Your task to perform on an android device: Open Chrome and go to settings Image 0: 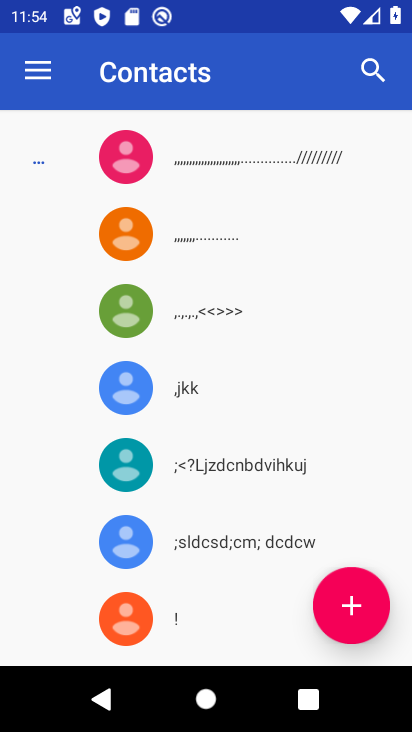
Step 0: press home button
Your task to perform on an android device: Open Chrome and go to settings Image 1: 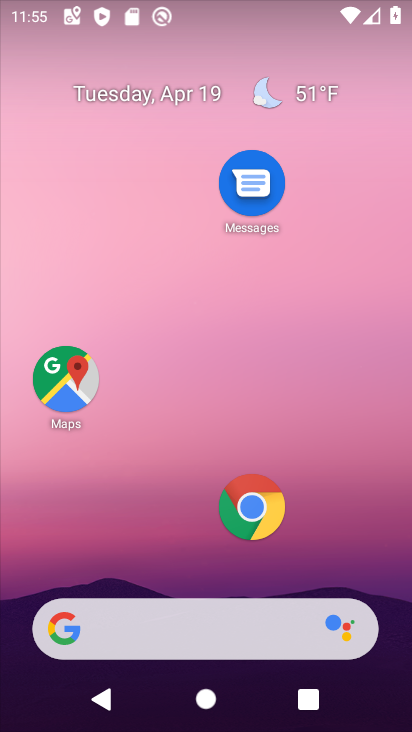
Step 1: click (253, 505)
Your task to perform on an android device: Open Chrome and go to settings Image 2: 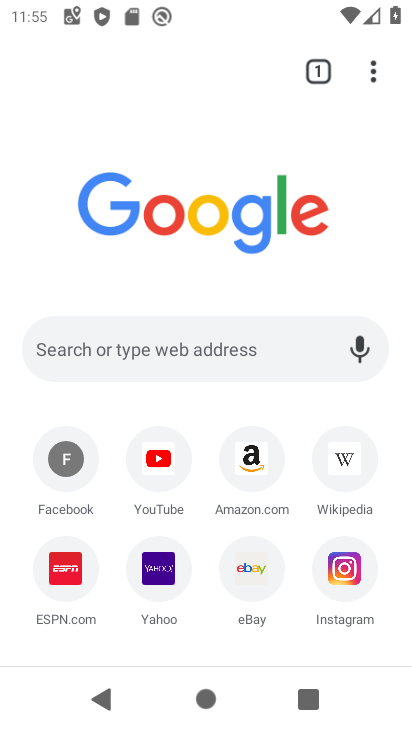
Step 2: click (373, 69)
Your task to perform on an android device: Open Chrome and go to settings Image 3: 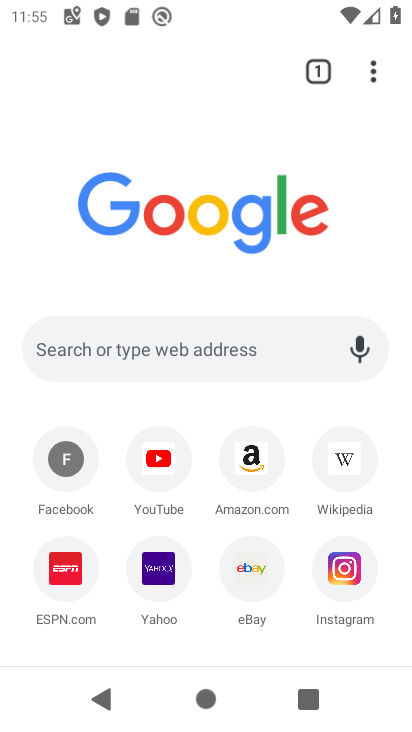
Step 3: task complete